Your task to perform on an android device: turn off improve location accuracy Image 0: 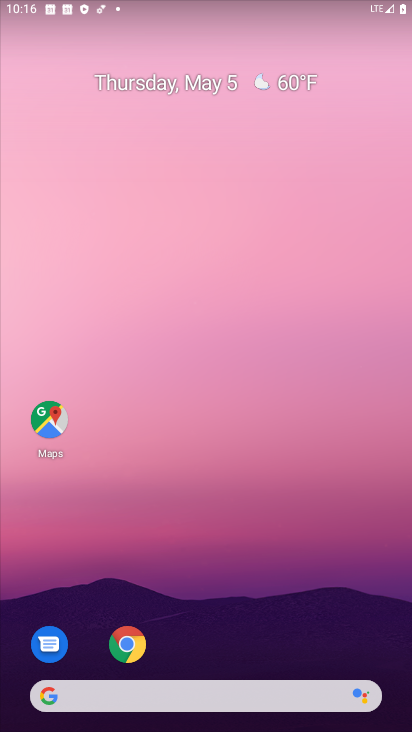
Step 0: drag from (190, 633) to (208, 336)
Your task to perform on an android device: turn off improve location accuracy Image 1: 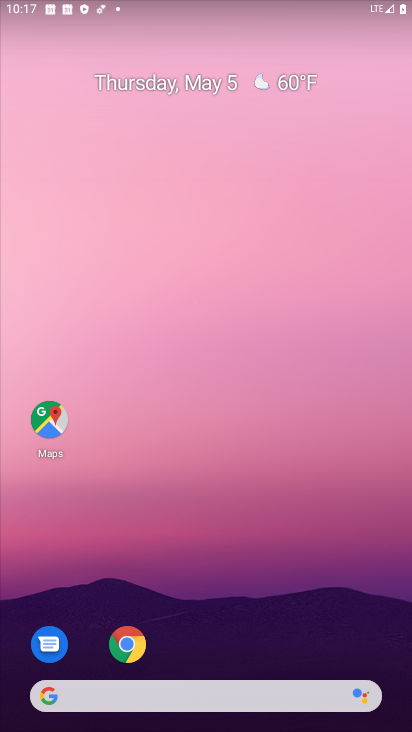
Step 1: drag from (190, 669) to (179, 342)
Your task to perform on an android device: turn off improve location accuracy Image 2: 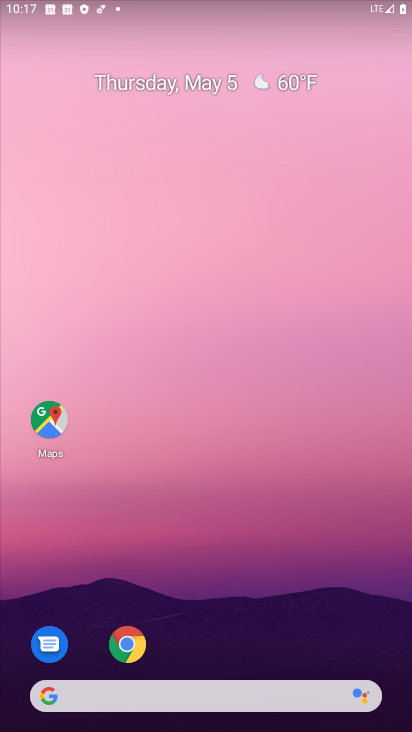
Step 2: drag from (193, 656) to (156, 417)
Your task to perform on an android device: turn off improve location accuracy Image 3: 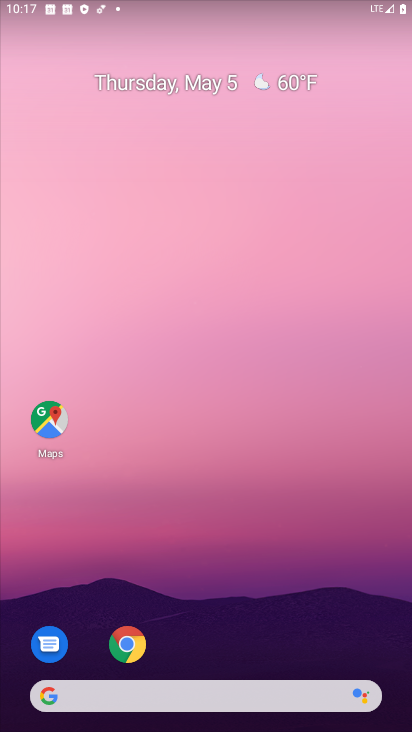
Step 3: drag from (182, 583) to (160, 206)
Your task to perform on an android device: turn off improve location accuracy Image 4: 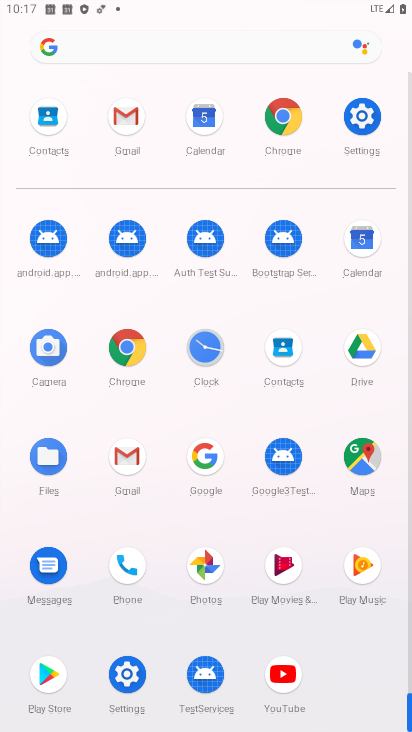
Step 4: drag from (241, 635) to (201, 388)
Your task to perform on an android device: turn off improve location accuracy Image 5: 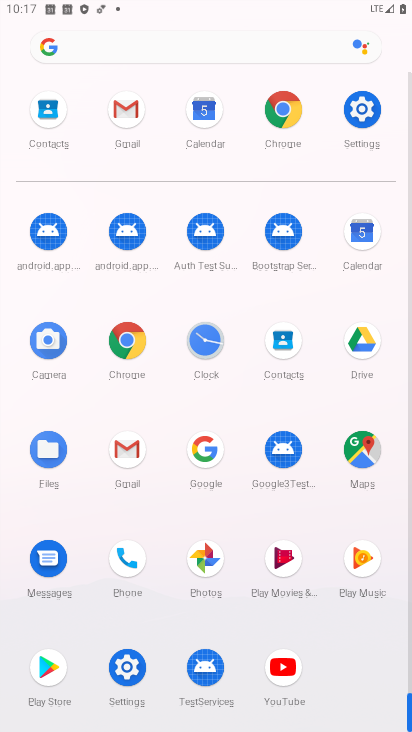
Step 5: click (126, 658)
Your task to perform on an android device: turn off improve location accuracy Image 6: 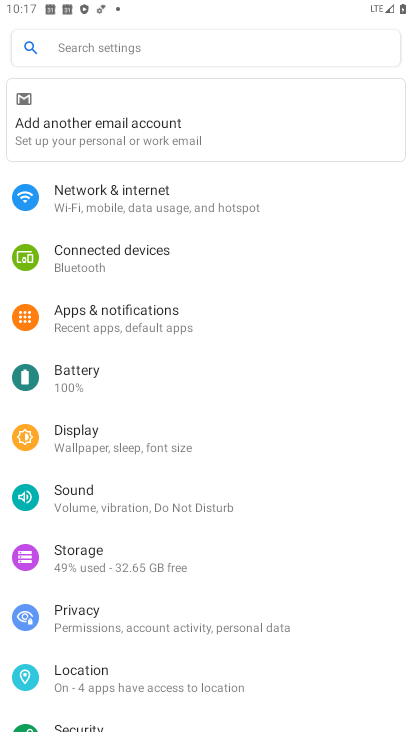
Step 6: drag from (164, 659) to (144, 394)
Your task to perform on an android device: turn off improve location accuracy Image 7: 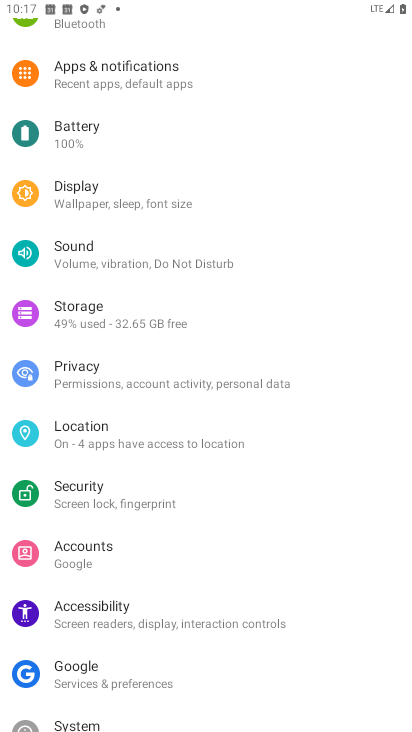
Step 7: drag from (168, 697) to (185, 336)
Your task to perform on an android device: turn off improve location accuracy Image 8: 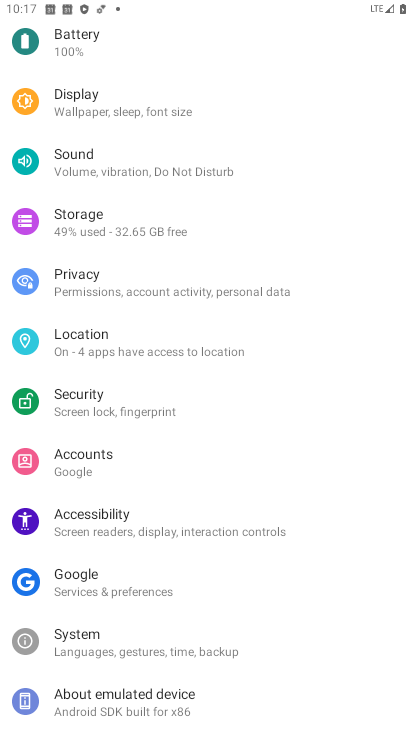
Step 8: click (118, 354)
Your task to perform on an android device: turn off improve location accuracy Image 9: 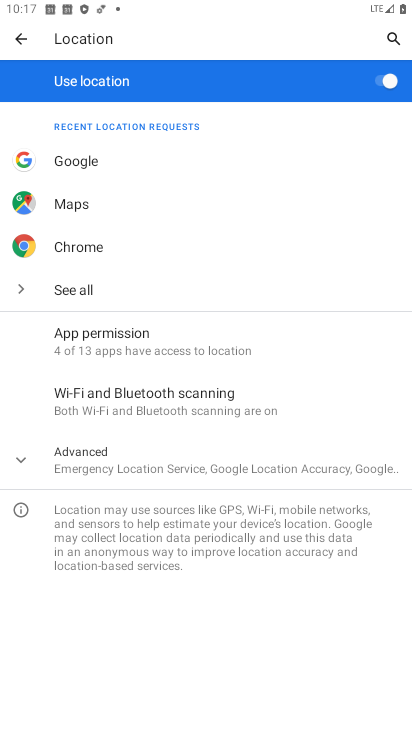
Step 9: click (178, 444)
Your task to perform on an android device: turn off improve location accuracy Image 10: 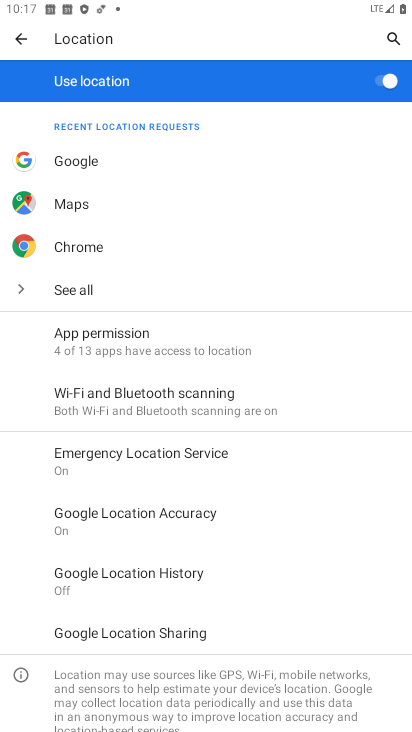
Step 10: click (186, 511)
Your task to perform on an android device: turn off improve location accuracy Image 11: 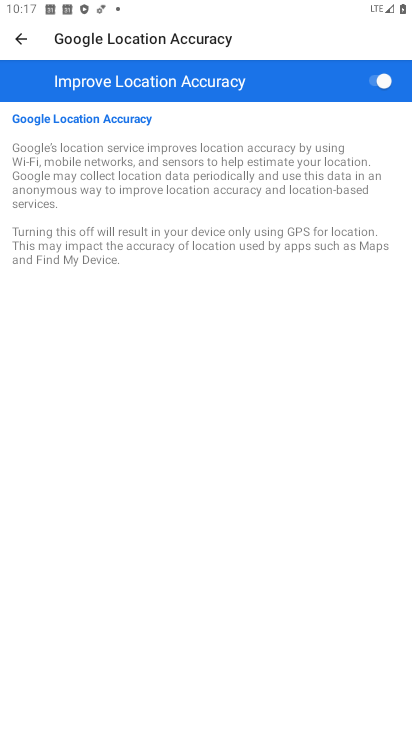
Step 11: click (374, 78)
Your task to perform on an android device: turn off improve location accuracy Image 12: 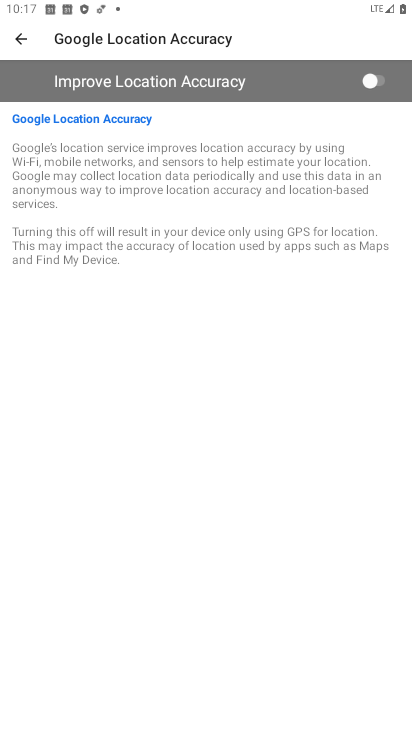
Step 12: task complete